Your task to perform on an android device: Open the map Image 0: 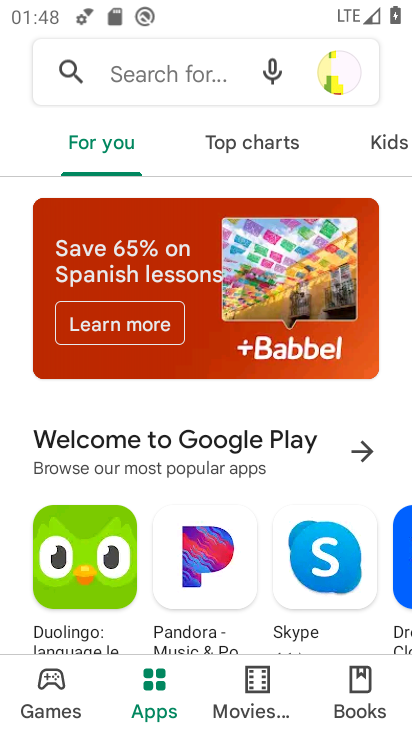
Step 0: press home button
Your task to perform on an android device: Open the map Image 1: 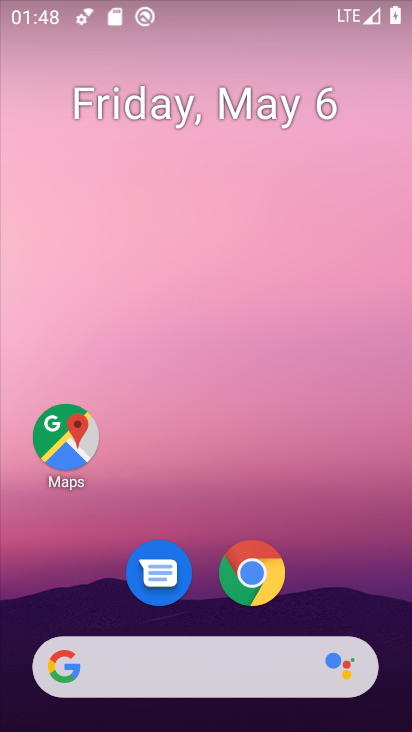
Step 1: drag from (330, 545) to (350, 222)
Your task to perform on an android device: Open the map Image 2: 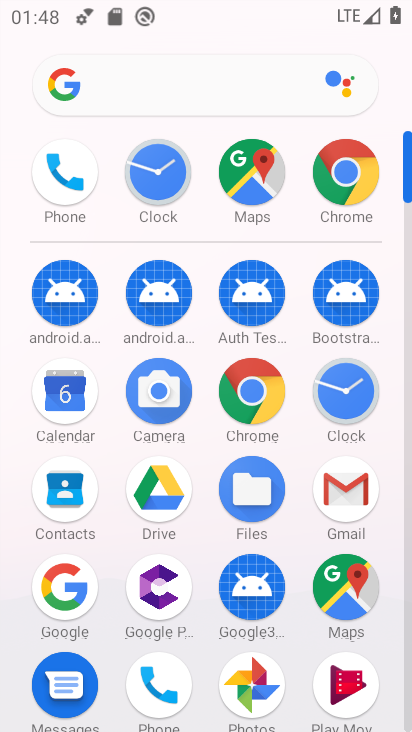
Step 2: click (338, 583)
Your task to perform on an android device: Open the map Image 3: 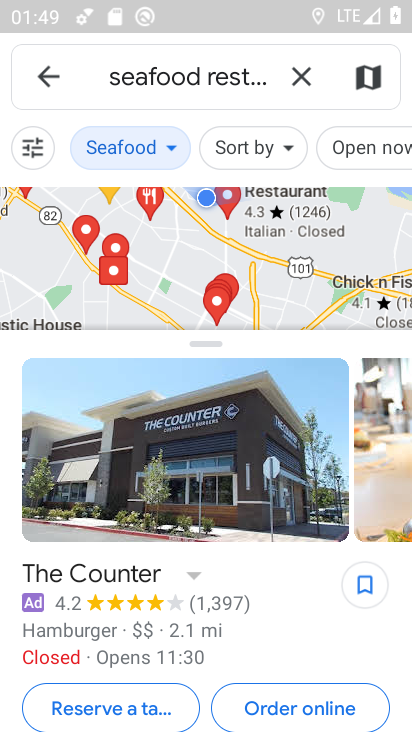
Step 3: task complete